Your task to perform on an android device: check battery use Image 0: 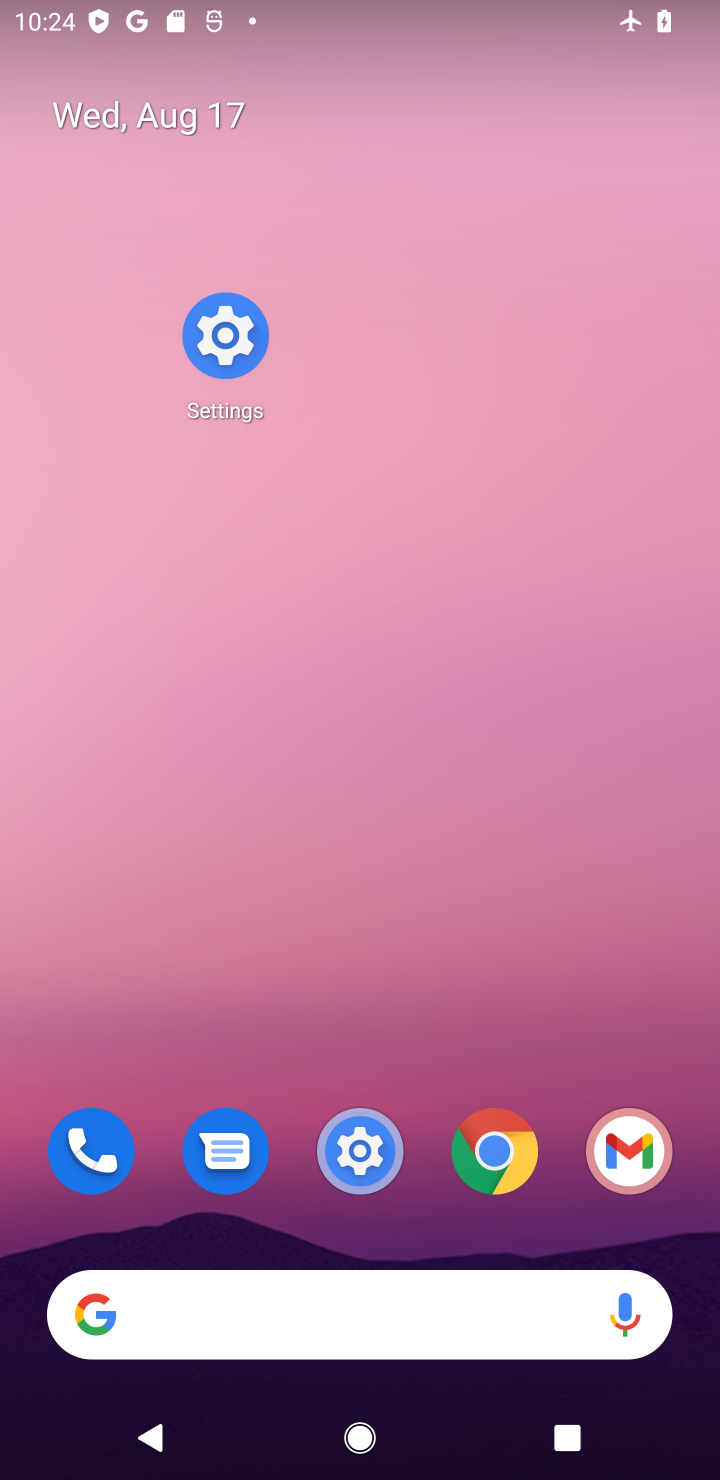
Step 0: click (351, 1148)
Your task to perform on an android device: check battery use Image 1: 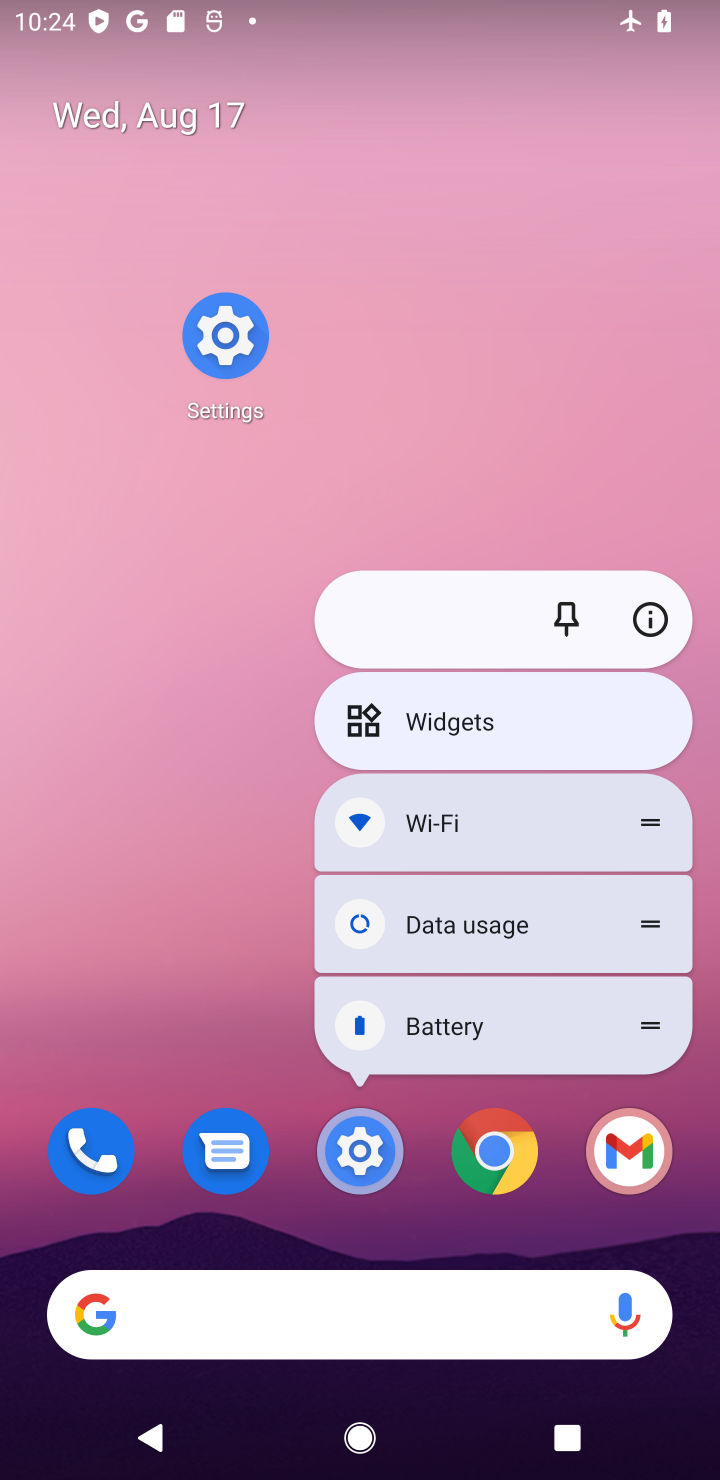
Step 1: click (351, 1148)
Your task to perform on an android device: check battery use Image 2: 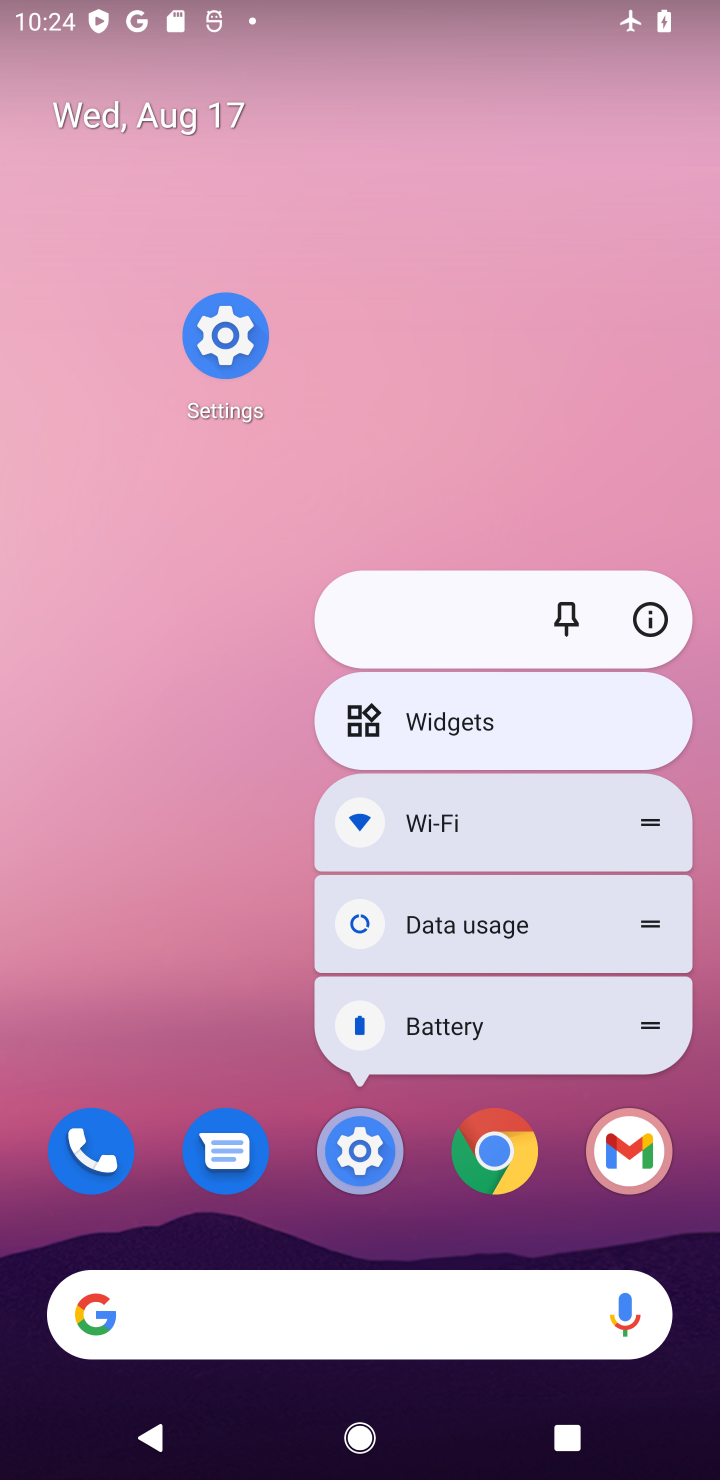
Step 2: click (356, 1149)
Your task to perform on an android device: check battery use Image 3: 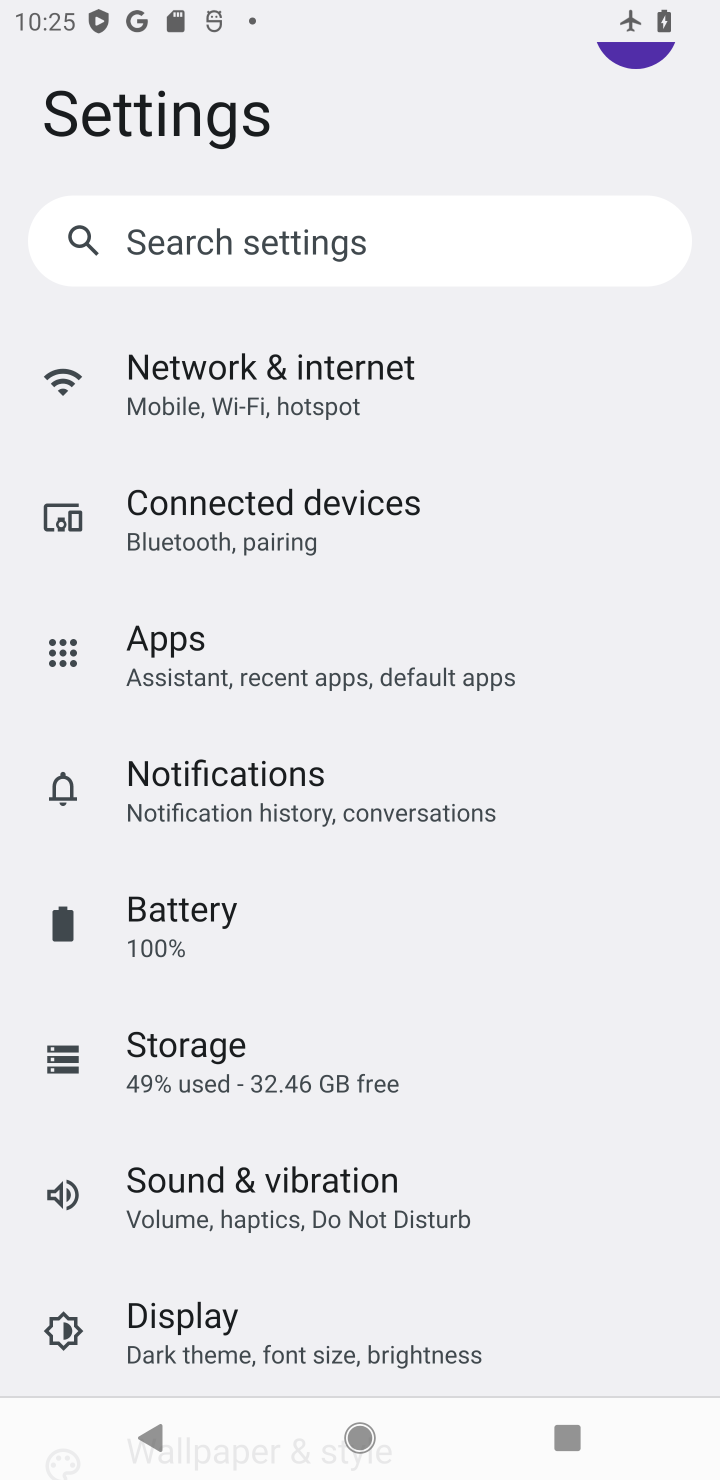
Step 3: click (257, 940)
Your task to perform on an android device: check battery use Image 4: 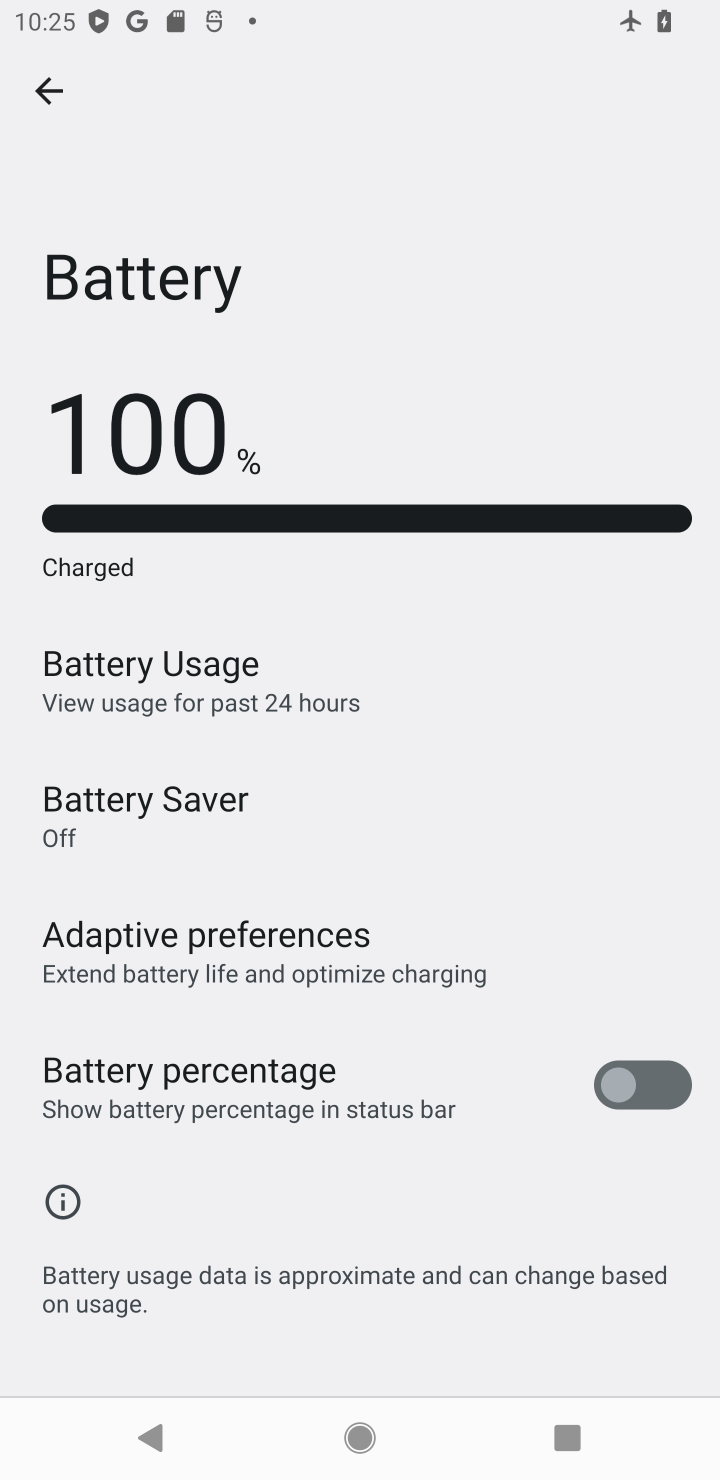
Step 4: task complete